Your task to perform on an android device: turn off wifi Image 0: 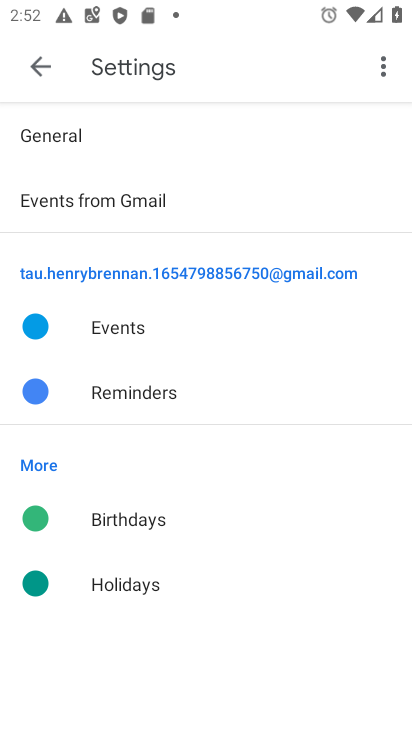
Step 0: press home button
Your task to perform on an android device: turn off wifi Image 1: 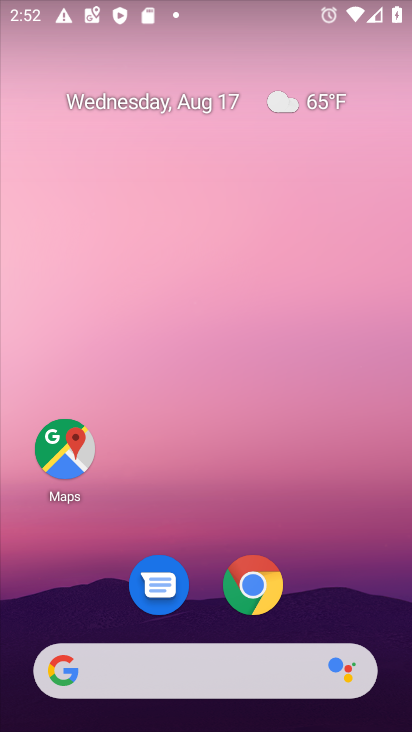
Step 1: drag from (208, 511) to (325, 47)
Your task to perform on an android device: turn off wifi Image 2: 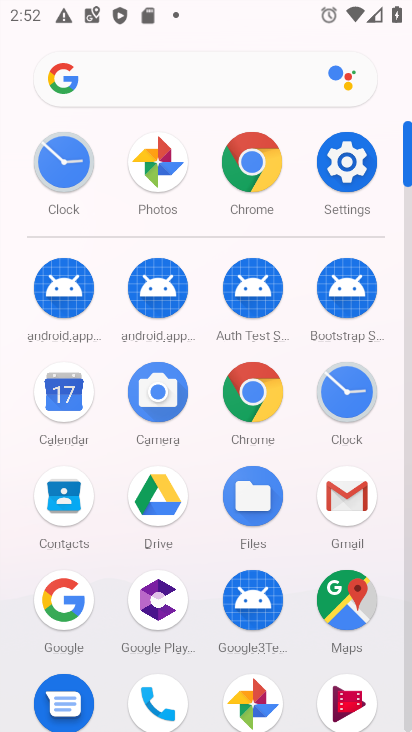
Step 2: click (351, 158)
Your task to perform on an android device: turn off wifi Image 3: 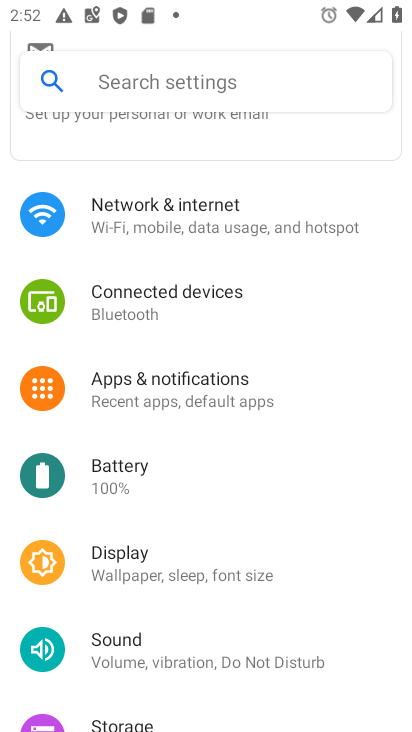
Step 3: click (220, 222)
Your task to perform on an android device: turn off wifi Image 4: 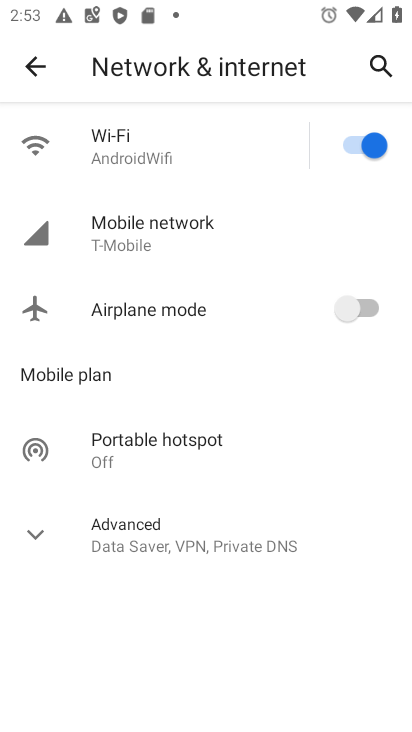
Step 4: click (362, 146)
Your task to perform on an android device: turn off wifi Image 5: 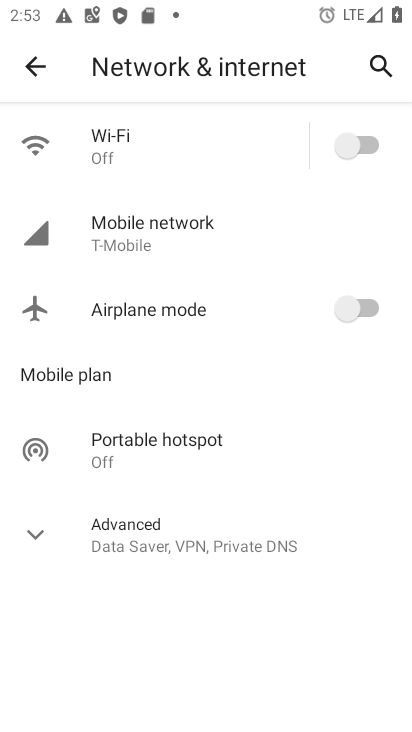
Step 5: task complete